Your task to perform on an android device: Open calendar and show me the third week of next month Image 0: 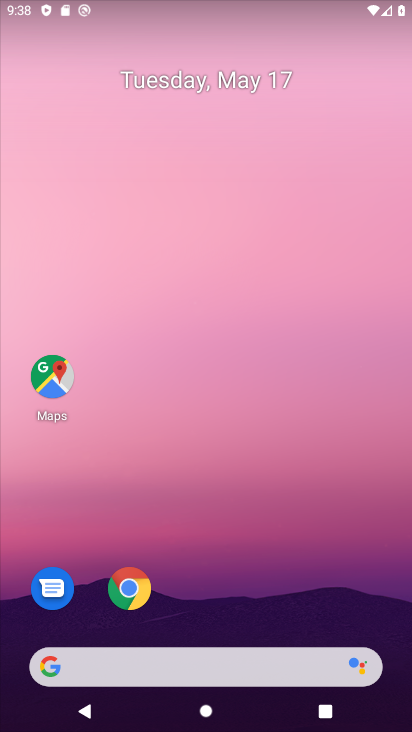
Step 0: drag from (158, 626) to (296, 191)
Your task to perform on an android device: Open calendar and show me the third week of next month Image 1: 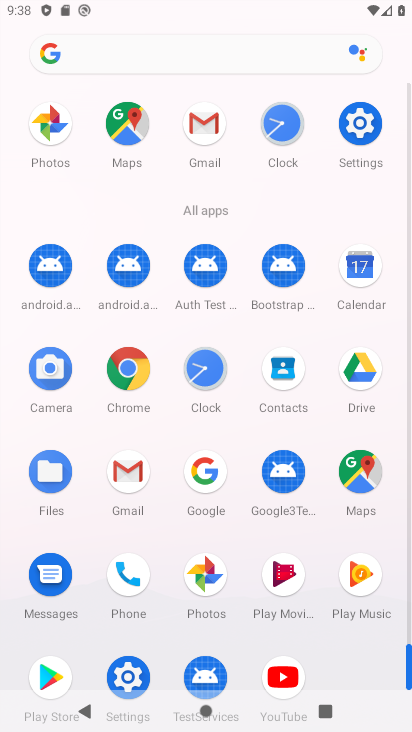
Step 1: click (354, 273)
Your task to perform on an android device: Open calendar and show me the third week of next month Image 2: 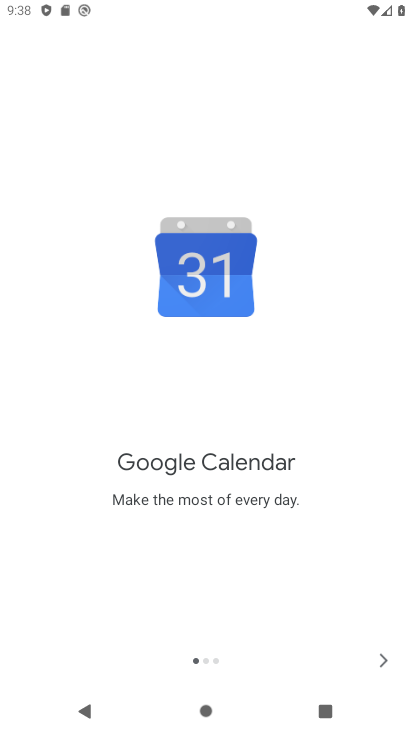
Step 2: click (391, 656)
Your task to perform on an android device: Open calendar and show me the third week of next month Image 3: 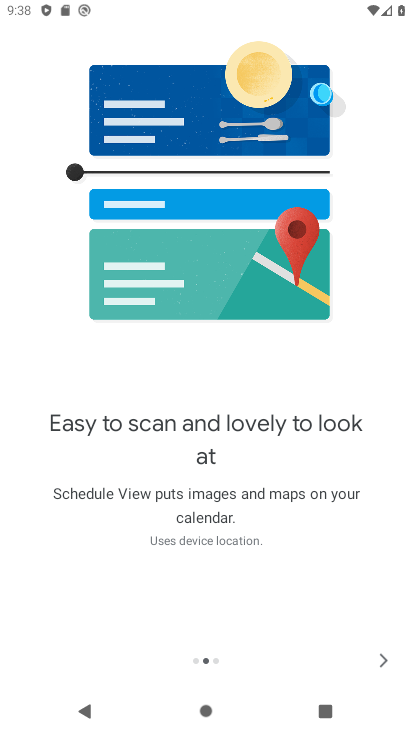
Step 3: click (391, 657)
Your task to perform on an android device: Open calendar and show me the third week of next month Image 4: 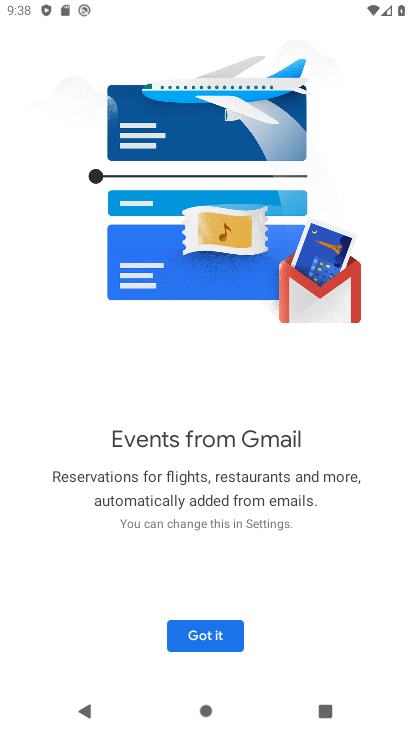
Step 4: click (210, 632)
Your task to perform on an android device: Open calendar and show me the third week of next month Image 5: 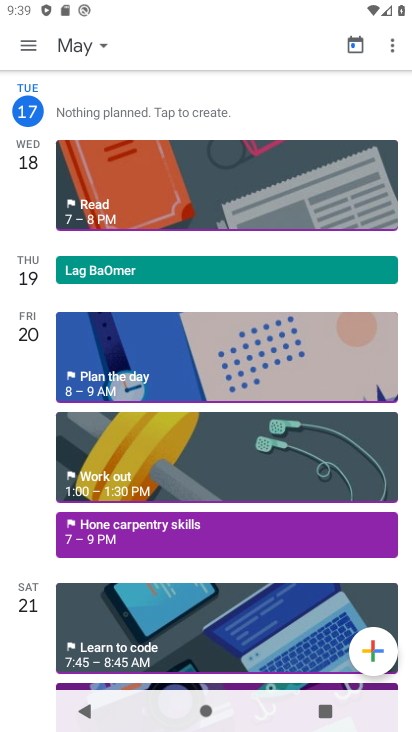
Step 5: click (82, 52)
Your task to perform on an android device: Open calendar and show me the third week of next month Image 6: 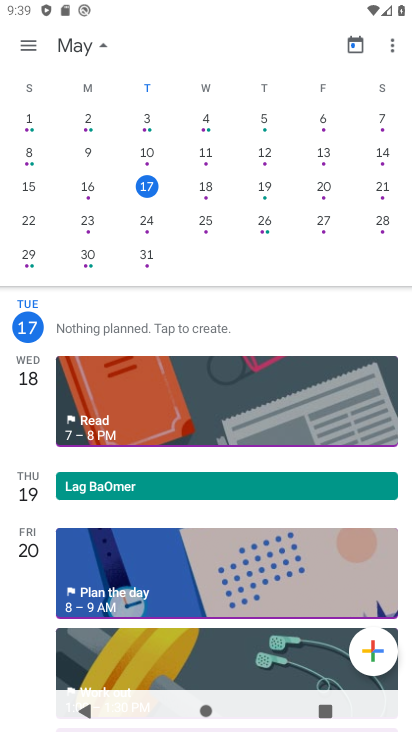
Step 6: drag from (366, 261) to (57, 239)
Your task to perform on an android device: Open calendar and show me the third week of next month Image 7: 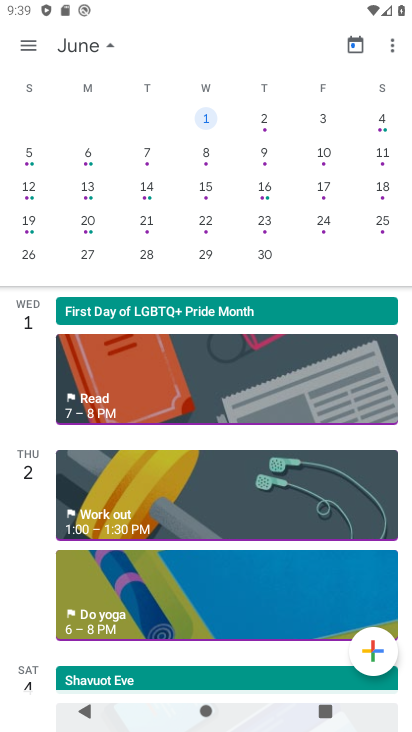
Step 7: click (28, 221)
Your task to perform on an android device: Open calendar and show me the third week of next month Image 8: 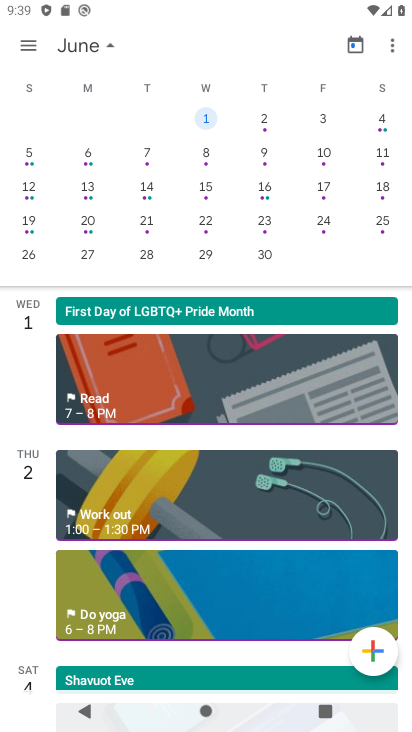
Step 8: click (29, 228)
Your task to perform on an android device: Open calendar and show me the third week of next month Image 9: 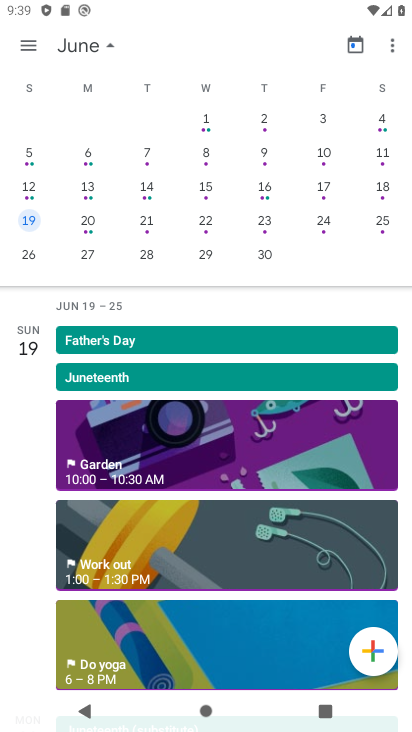
Step 9: click (27, 49)
Your task to perform on an android device: Open calendar and show me the third week of next month Image 10: 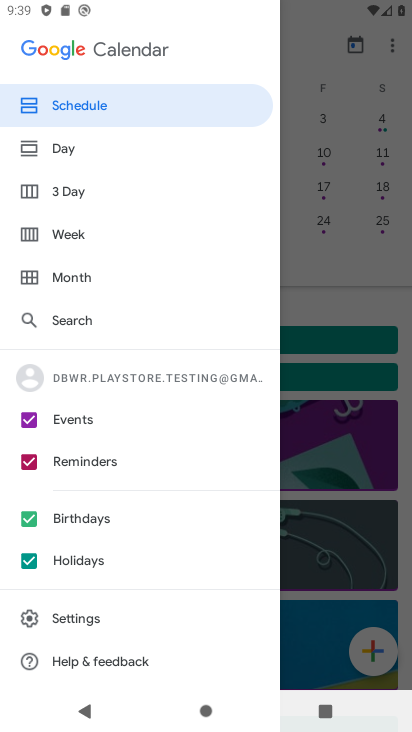
Step 10: click (79, 245)
Your task to perform on an android device: Open calendar and show me the third week of next month Image 11: 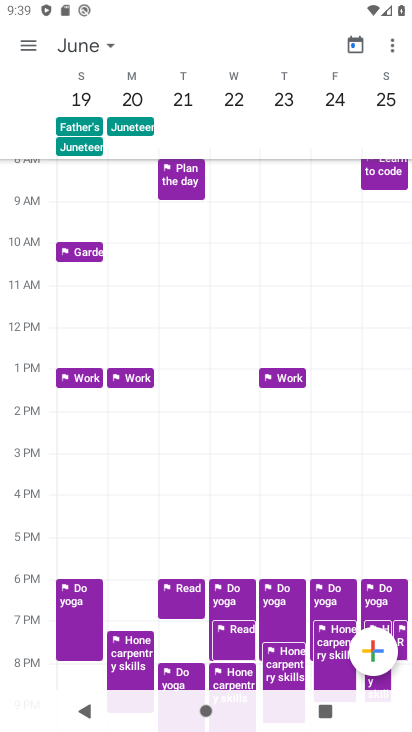
Step 11: task complete